Your task to perform on an android device: toggle translation in the chrome app Image 0: 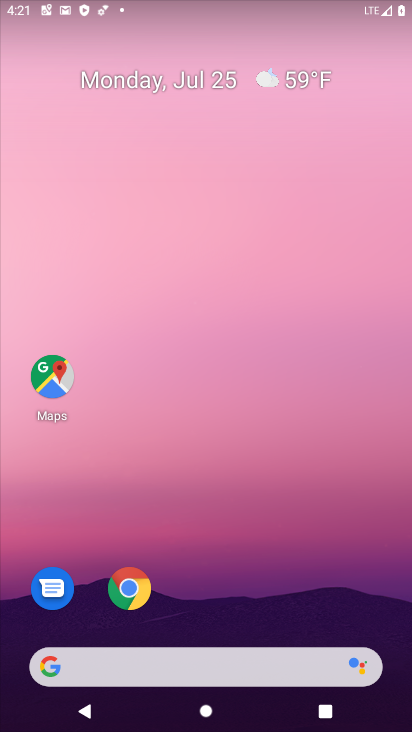
Step 0: drag from (319, 591) to (321, 731)
Your task to perform on an android device: toggle translation in the chrome app Image 1: 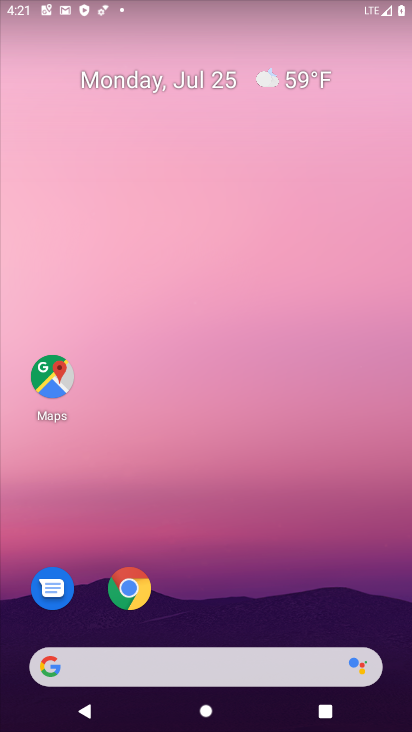
Step 1: click (126, 577)
Your task to perform on an android device: toggle translation in the chrome app Image 2: 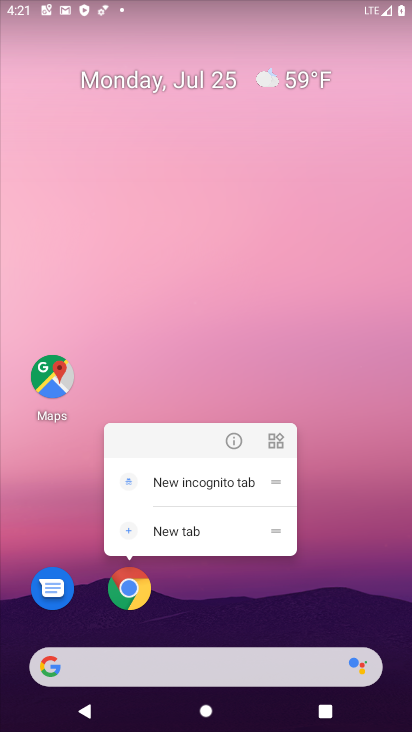
Step 2: click (121, 585)
Your task to perform on an android device: toggle translation in the chrome app Image 3: 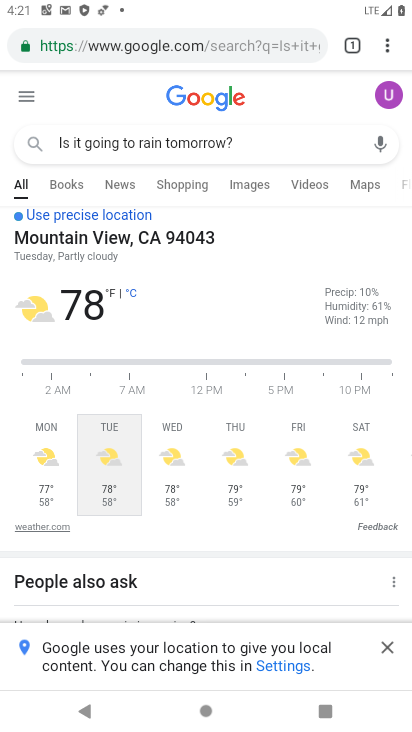
Step 3: drag from (383, 41) to (248, 505)
Your task to perform on an android device: toggle translation in the chrome app Image 4: 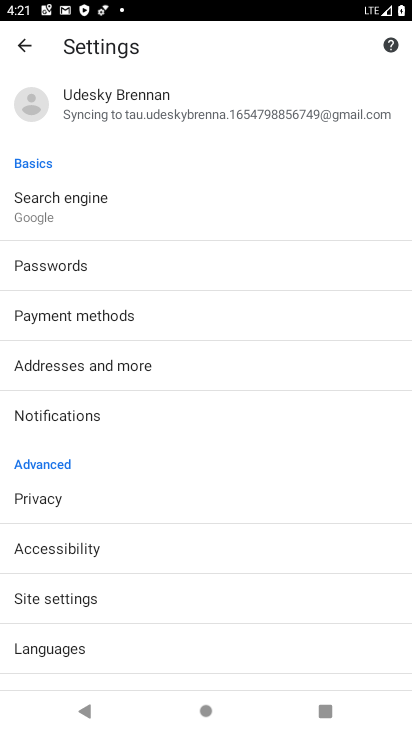
Step 4: click (38, 647)
Your task to perform on an android device: toggle translation in the chrome app Image 5: 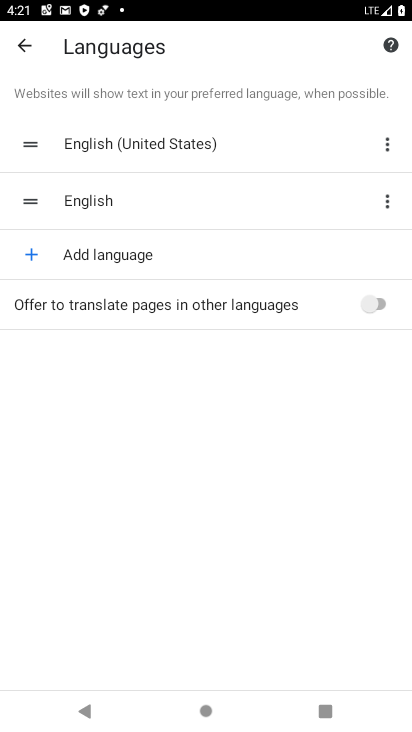
Step 5: click (305, 305)
Your task to perform on an android device: toggle translation in the chrome app Image 6: 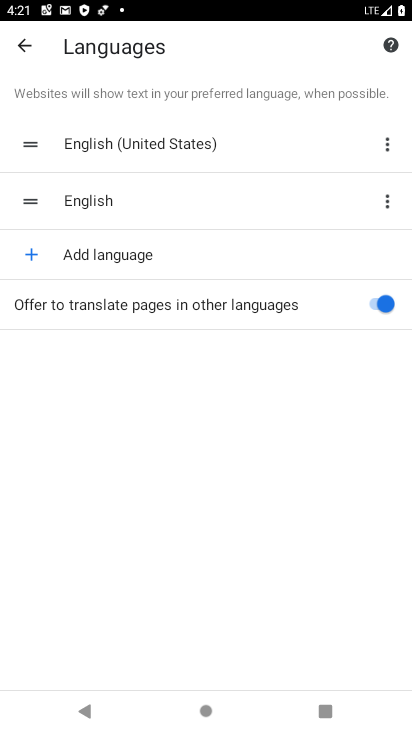
Step 6: task complete